Your task to perform on an android device: Open calendar and show me the third week of next month Image 0: 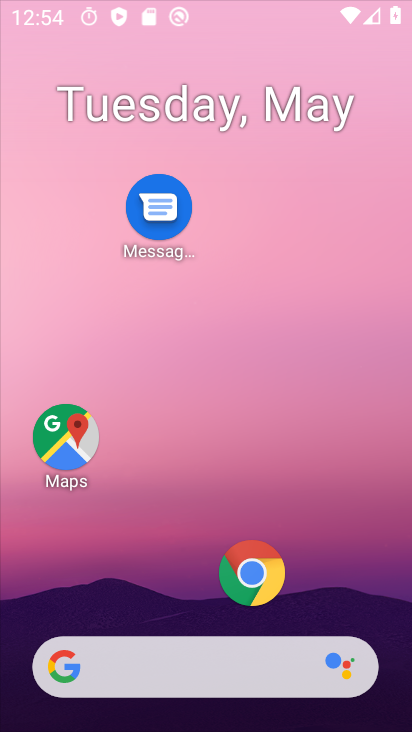
Step 0: drag from (169, 399) to (218, 30)
Your task to perform on an android device: Open calendar and show me the third week of next month Image 1: 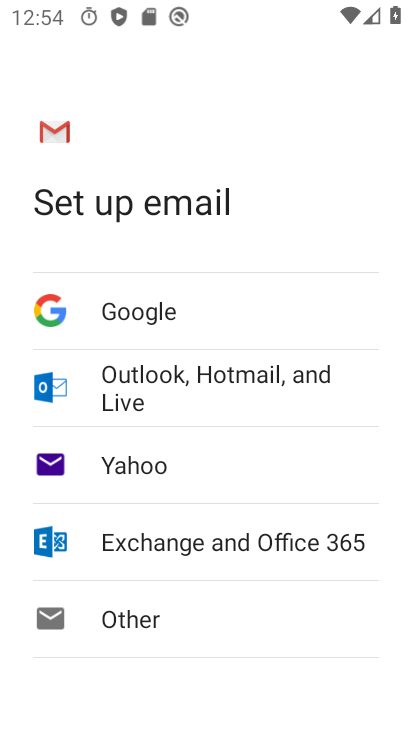
Step 1: press home button
Your task to perform on an android device: Open calendar and show me the third week of next month Image 2: 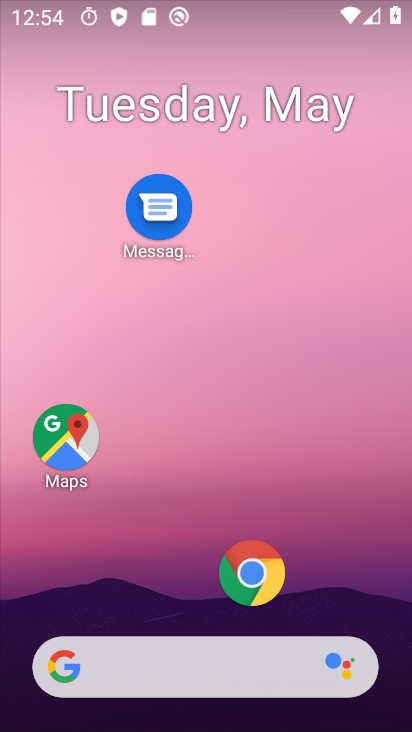
Step 2: drag from (215, 543) to (281, 119)
Your task to perform on an android device: Open calendar and show me the third week of next month Image 3: 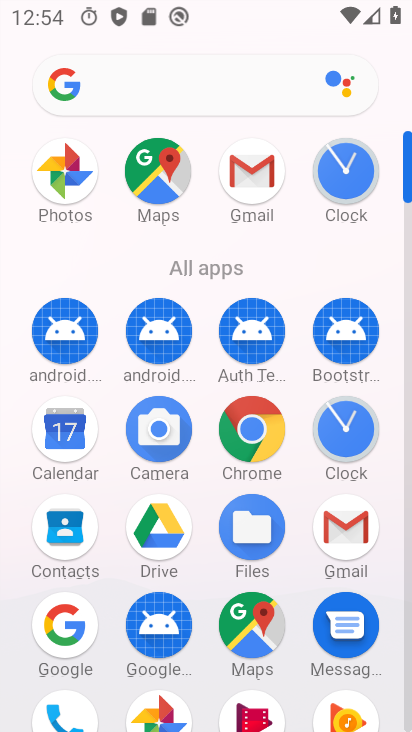
Step 3: click (68, 439)
Your task to perform on an android device: Open calendar and show me the third week of next month Image 4: 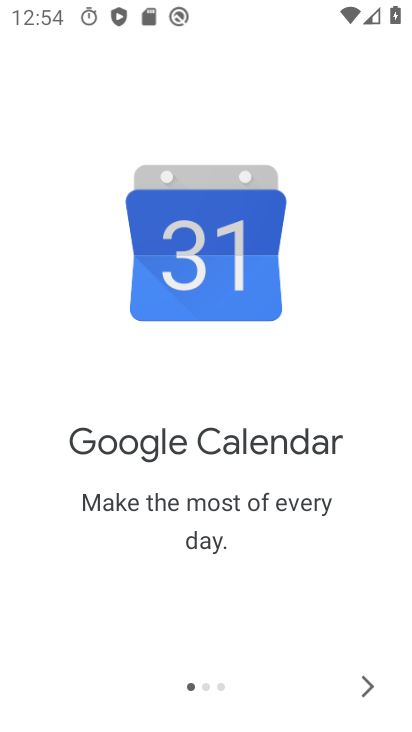
Step 4: click (363, 686)
Your task to perform on an android device: Open calendar and show me the third week of next month Image 5: 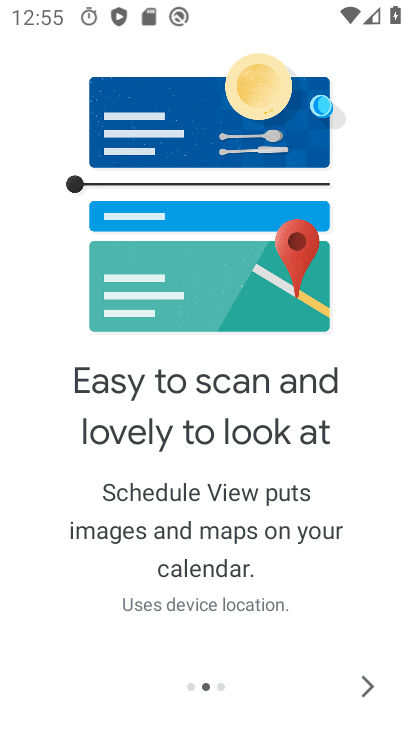
Step 5: click (362, 686)
Your task to perform on an android device: Open calendar and show me the third week of next month Image 6: 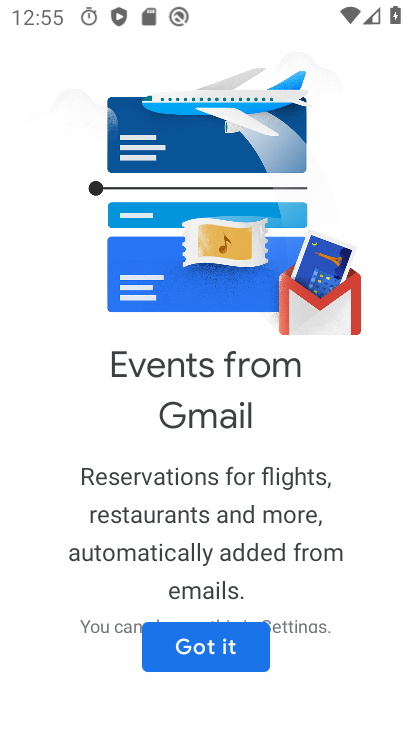
Step 6: click (204, 644)
Your task to perform on an android device: Open calendar and show me the third week of next month Image 7: 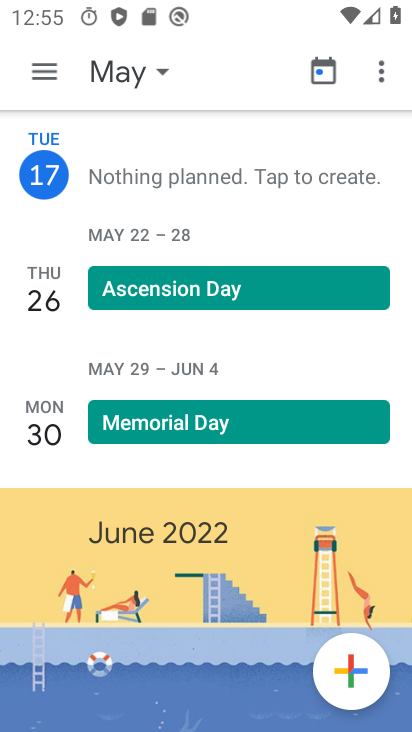
Step 7: click (34, 59)
Your task to perform on an android device: Open calendar and show me the third week of next month Image 8: 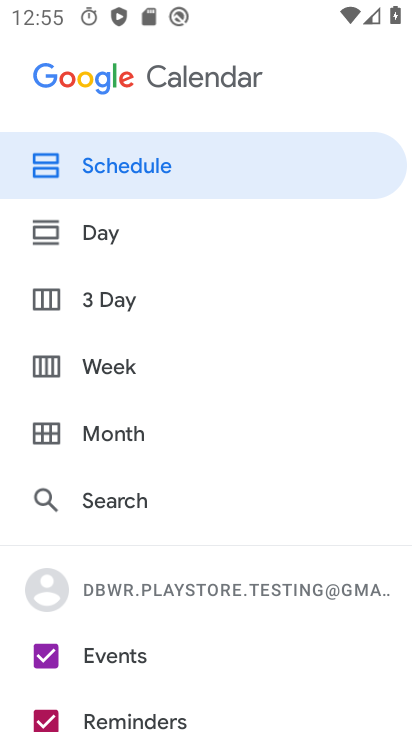
Step 8: click (128, 368)
Your task to perform on an android device: Open calendar and show me the third week of next month Image 9: 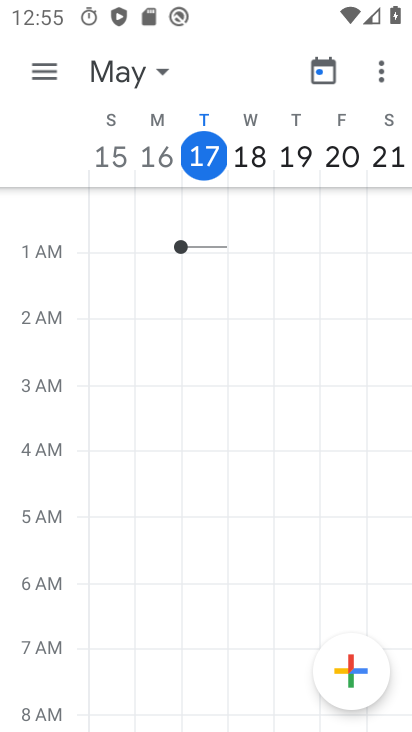
Step 9: task complete